Your task to perform on an android device: Go to calendar. Show me events next week Image 0: 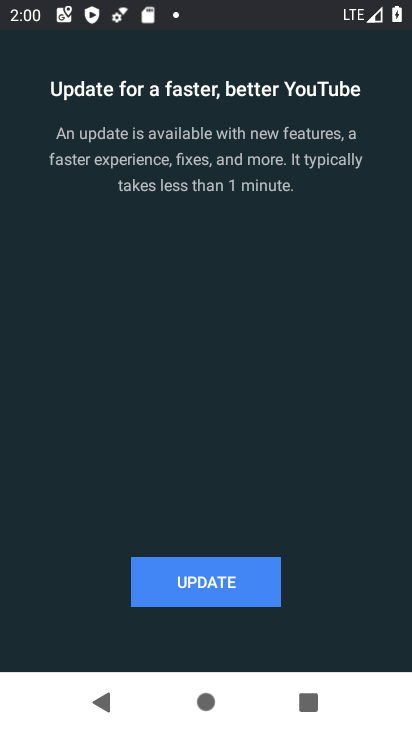
Step 0: press back button
Your task to perform on an android device: Go to calendar. Show me events next week Image 1: 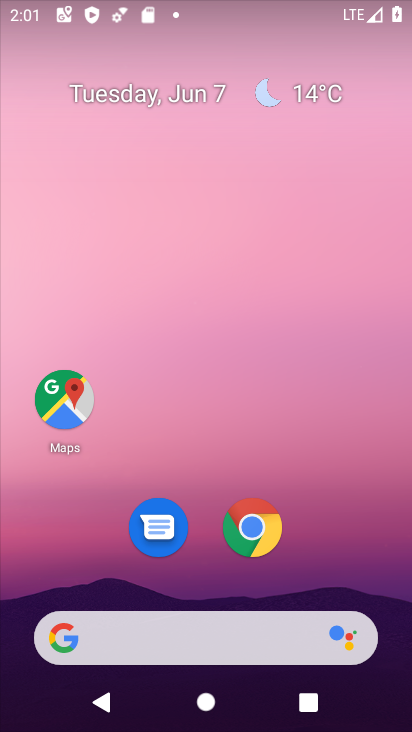
Step 1: drag from (390, 581) to (302, 260)
Your task to perform on an android device: Go to calendar. Show me events next week Image 2: 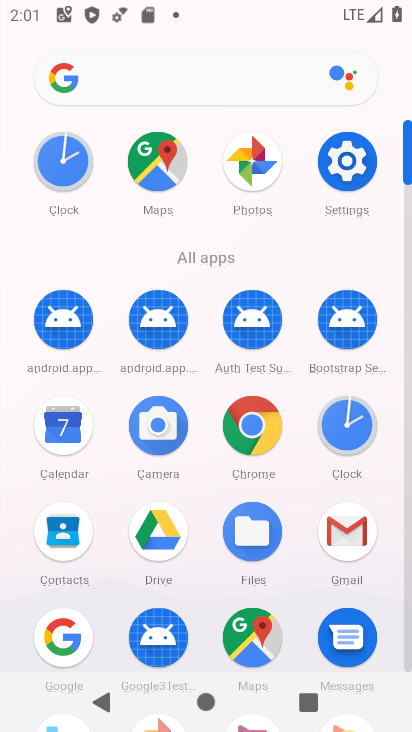
Step 2: click (47, 434)
Your task to perform on an android device: Go to calendar. Show me events next week Image 3: 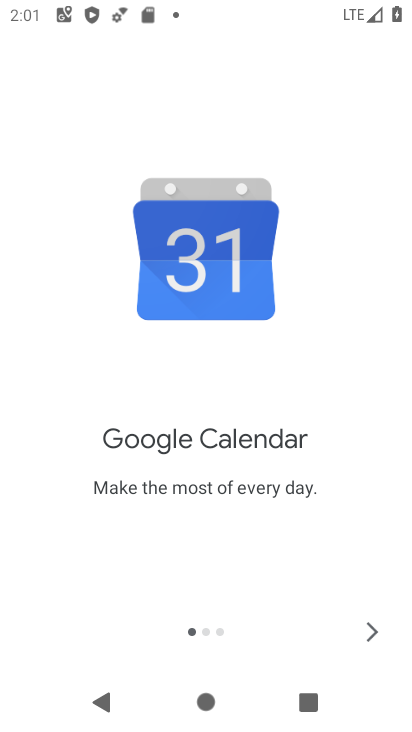
Step 3: click (368, 637)
Your task to perform on an android device: Go to calendar. Show me events next week Image 4: 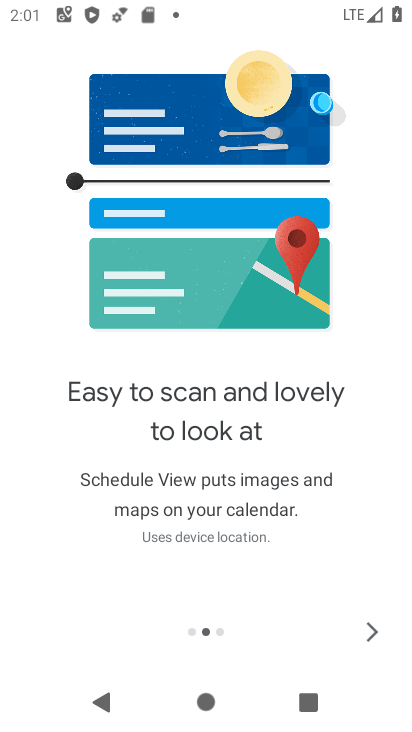
Step 4: click (368, 637)
Your task to perform on an android device: Go to calendar. Show me events next week Image 5: 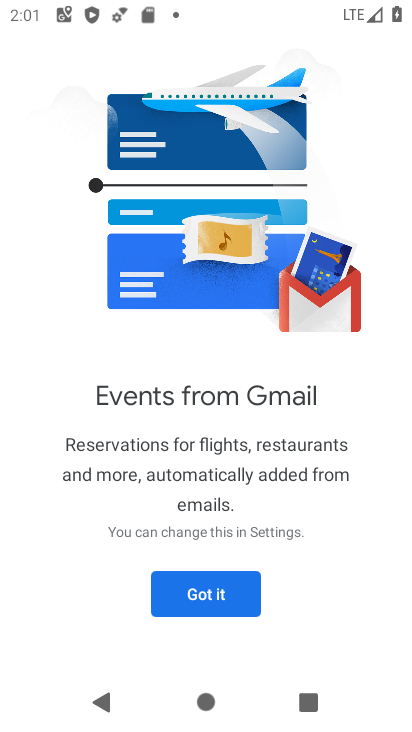
Step 5: click (226, 598)
Your task to perform on an android device: Go to calendar. Show me events next week Image 6: 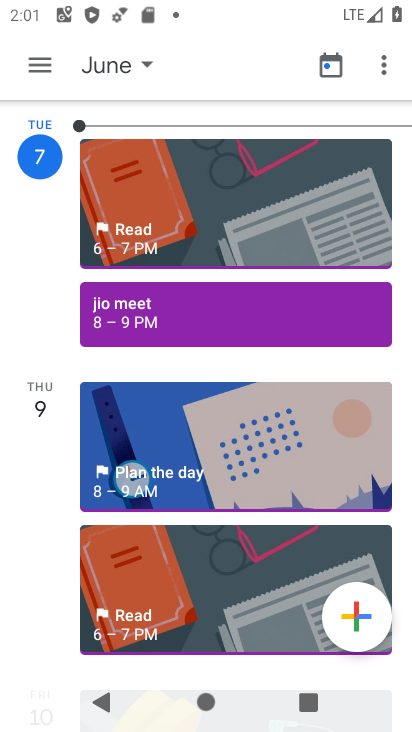
Step 6: click (47, 68)
Your task to perform on an android device: Go to calendar. Show me events next week Image 7: 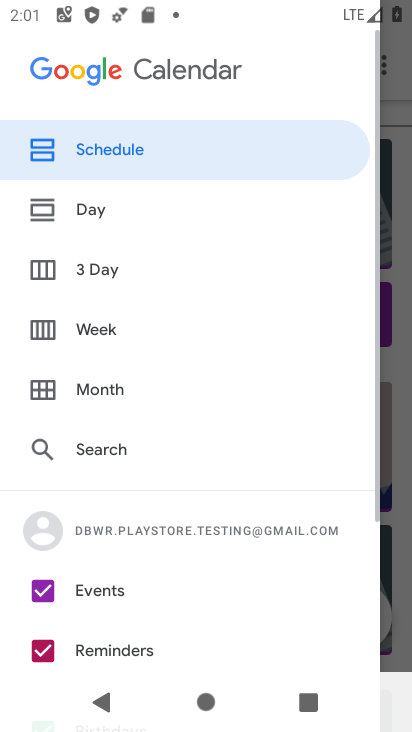
Step 7: drag from (212, 634) to (191, 244)
Your task to perform on an android device: Go to calendar. Show me events next week Image 8: 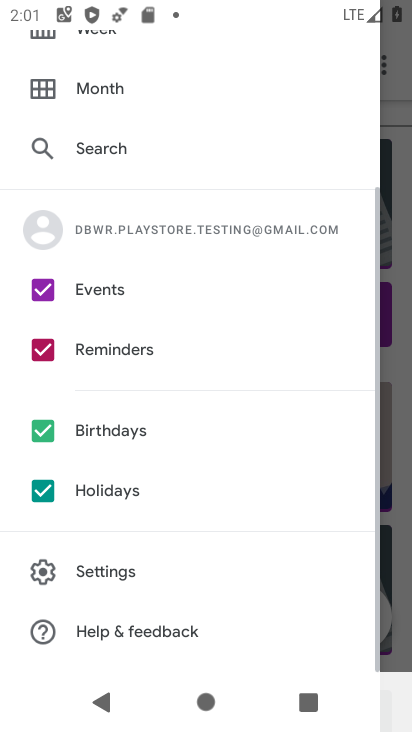
Step 8: click (44, 487)
Your task to perform on an android device: Go to calendar. Show me events next week Image 9: 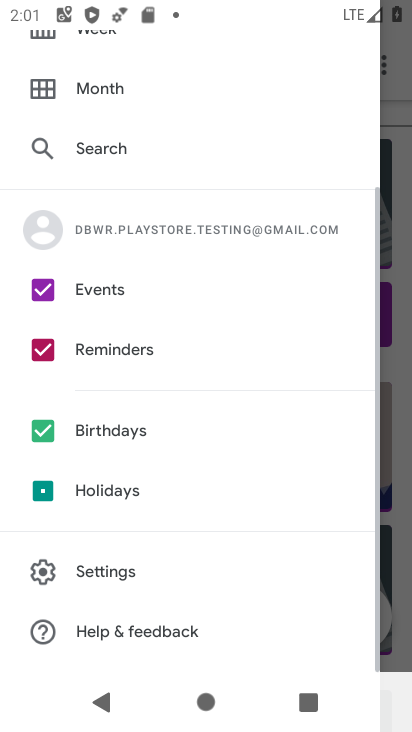
Step 9: click (40, 429)
Your task to perform on an android device: Go to calendar. Show me events next week Image 10: 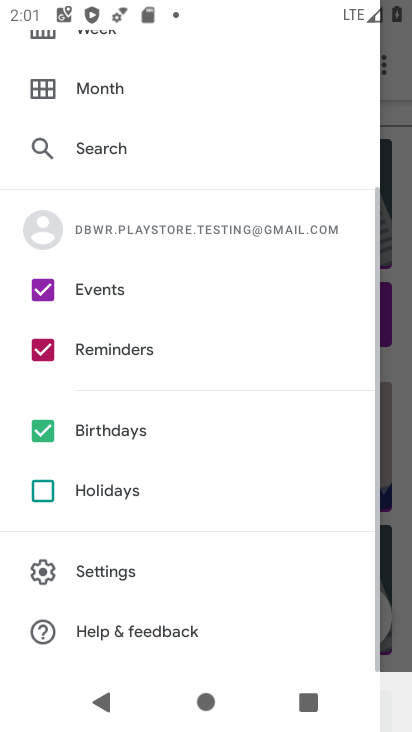
Step 10: click (46, 339)
Your task to perform on an android device: Go to calendar. Show me events next week Image 11: 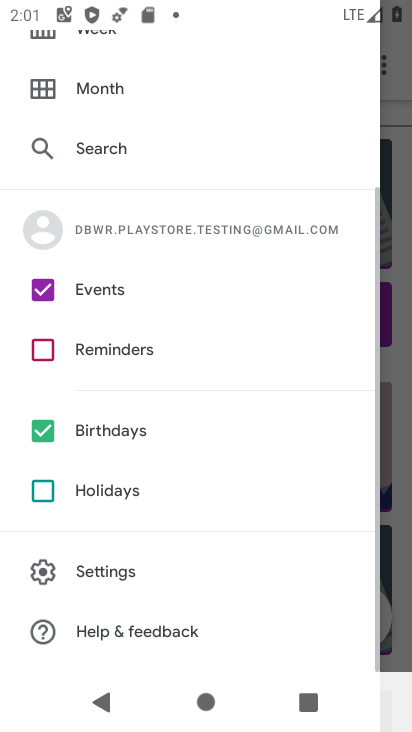
Step 11: click (44, 433)
Your task to perform on an android device: Go to calendar. Show me events next week Image 12: 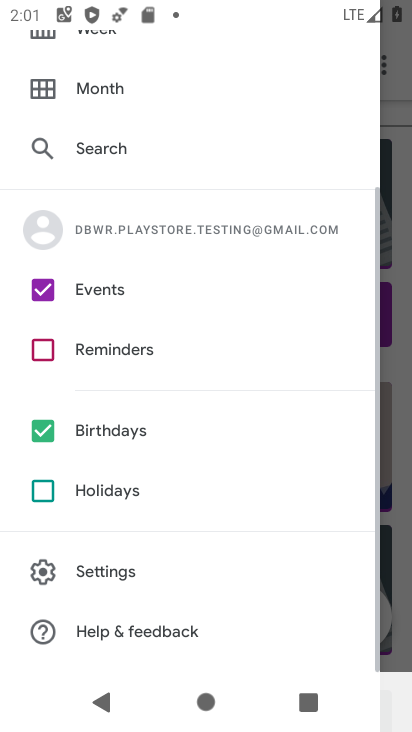
Step 12: click (40, 437)
Your task to perform on an android device: Go to calendar. Show me events next week Image 13: 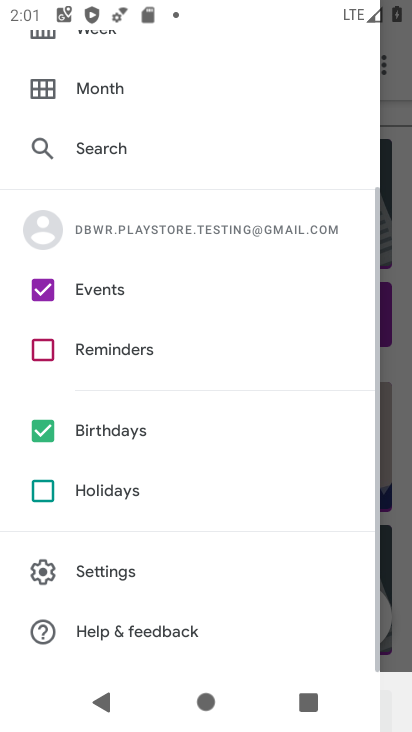
Step 13: click (41, 429)
Your task to perform on an android device: Go to calendar. Show me events next week Image 14: 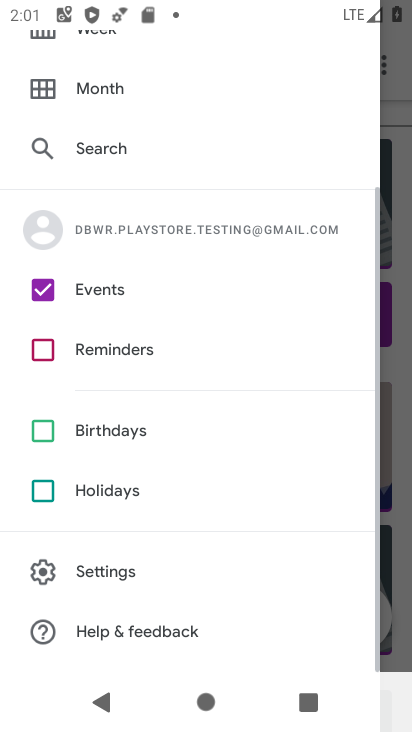
Step 14: drag from (145, 118) to (170, 367)
Your task to perform on an android device: Go to calendar. Show me events next week Image 15: 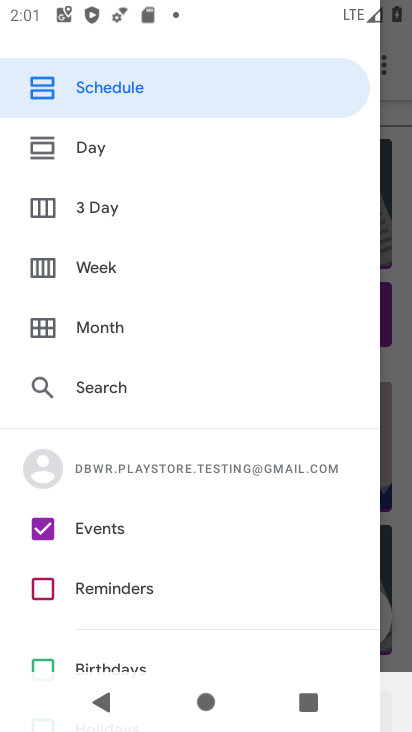
Step 15: click (126, 268)
Your task to perform on an android device: Go to calendar. Show me events next week Image 16: 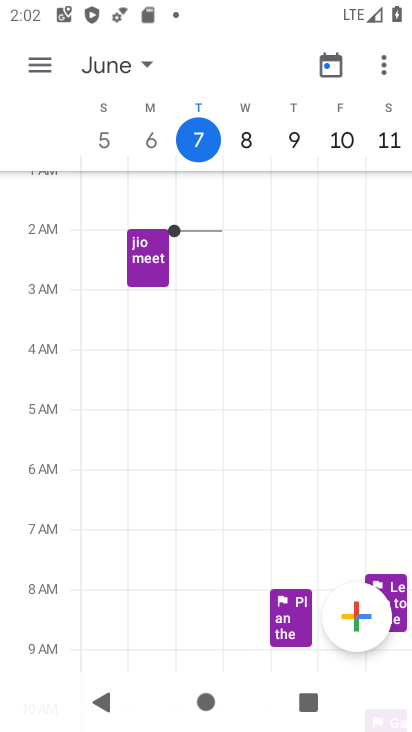
Step 16: task complete